Your task to perform on an android device: make emails show in primary in the gmail app Image 0: 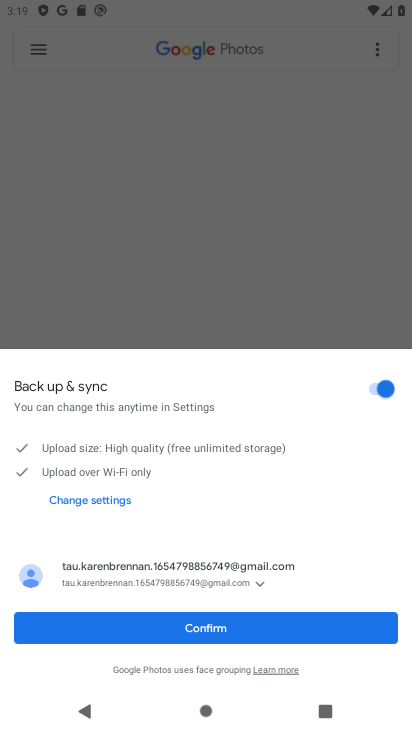
Step 0: press home button
Your task to perform on an android device: make emails show in primary in the gmail app Image 1: 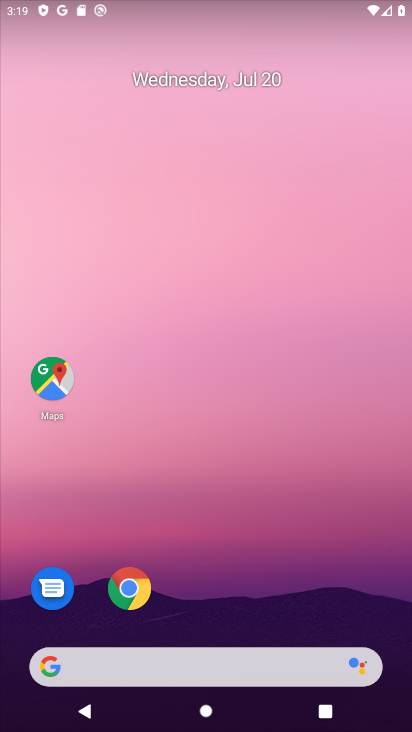
Step 1: drag from (211, 579) to (219, 210)
Your task to perform on an android device: make emails show in primary in the gmail app Image 2: 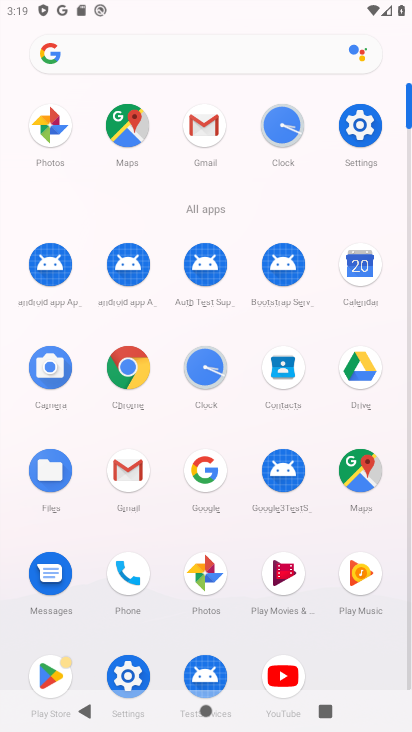
Step 2: click (194, 132)
Your task to perform on an android device: make emails show in primary in the gmail app Image 3: 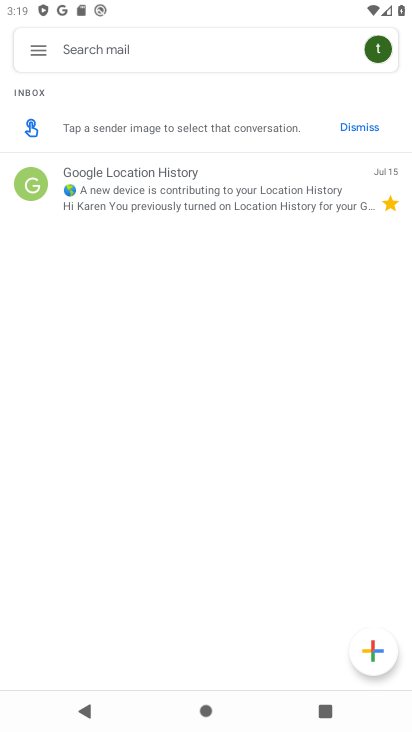
Step 3: click (39, 38)
Your task to perform on an android device: make emails show in primary in the gmail app Image 4: 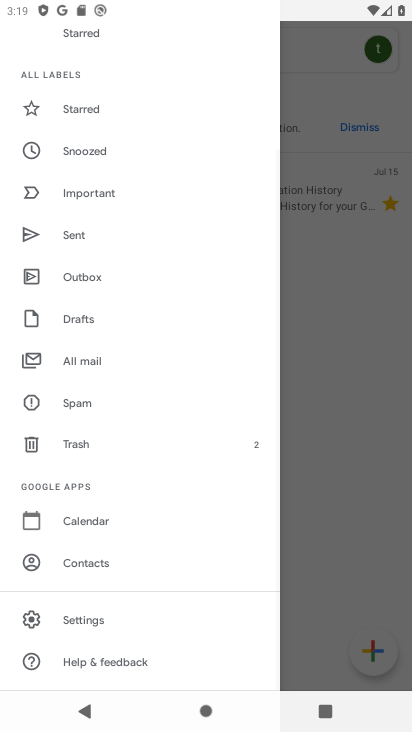
Step 4: task complete